Your task to perform on an android device: Go to Yahoo.com Image 0: 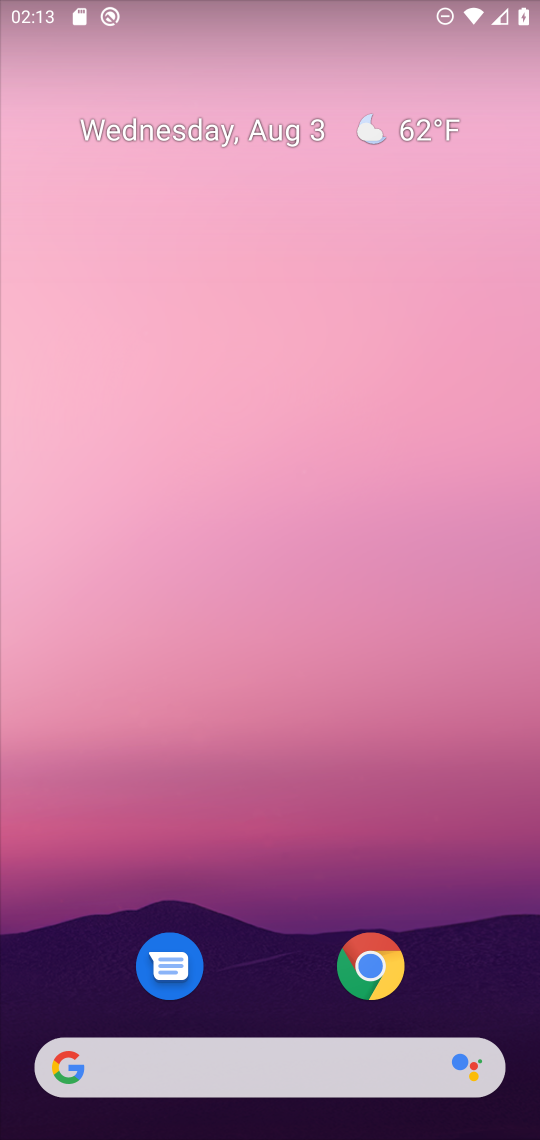
Step 0: click (356, 986)
Your task to perform on an android device: Go to Yahoo.com Image 1: 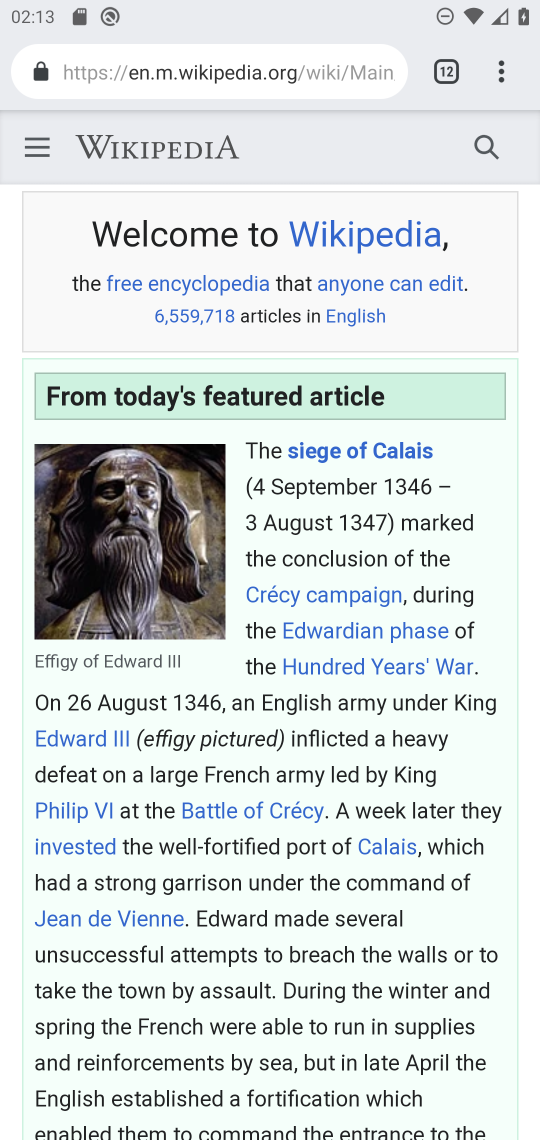
Step 1: click (456, 72)
Your task to perform on an android device: Go to Yahoo.com Image 2: 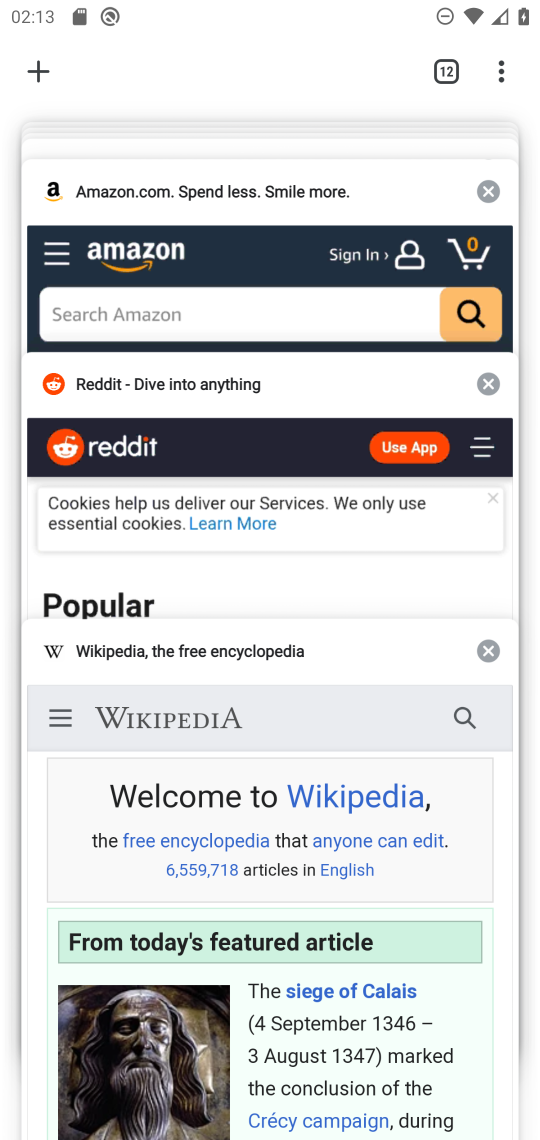
Step 2: click (35, 63)
Your task to perform on an android device: Go to Yahoo.com Image 3: 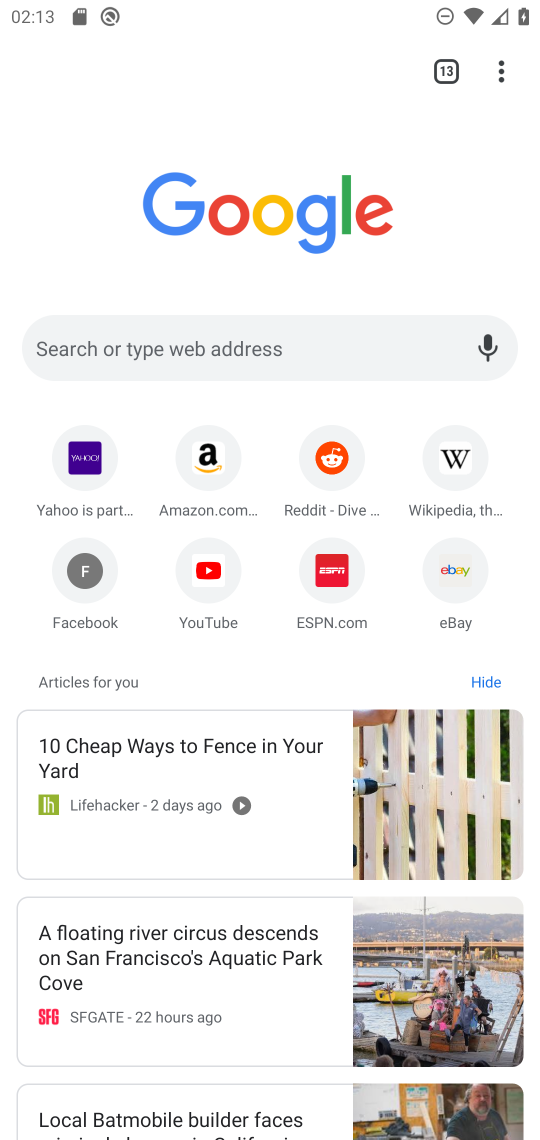
Step 3: click (105, 458)
Your task to perform on an android device: Go to Yahoo.com Image 4: 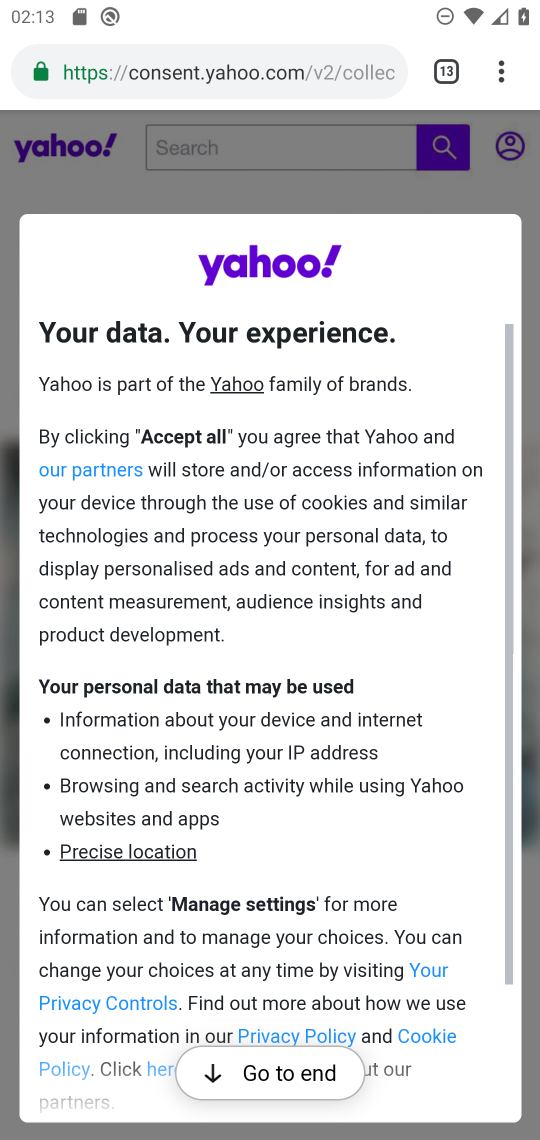
Step 4: task complete